Your task to perform on an android device: search for starred emails in the gmail app Image 0: 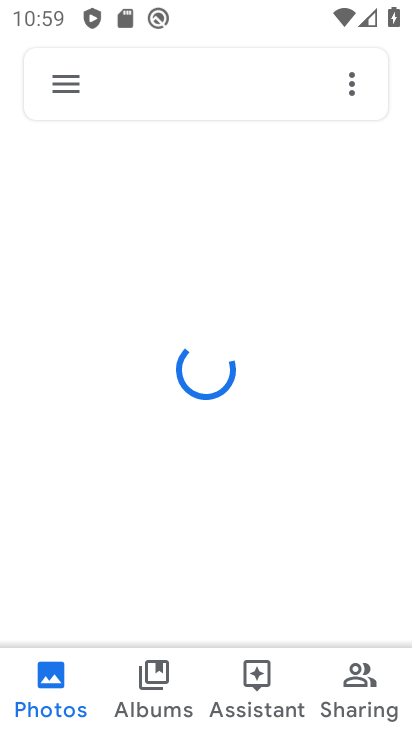
Step 0: press back button
Your task to perform on an android device: search for starred emails in the gmail app Image 1: 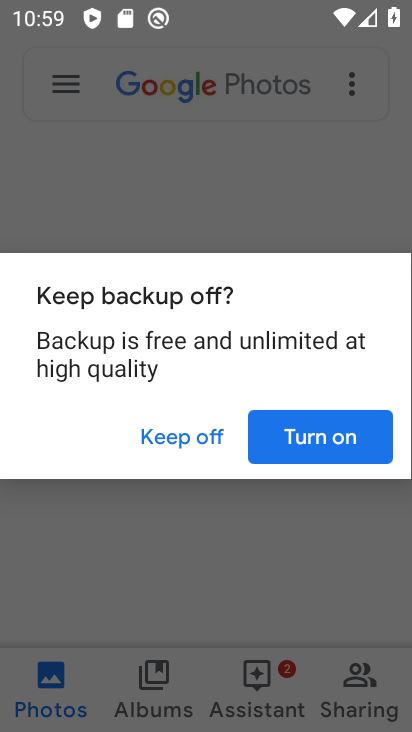
Step 1: press home button
Your task to perform on an android device: search for starred emails in the gmail app Image 2: 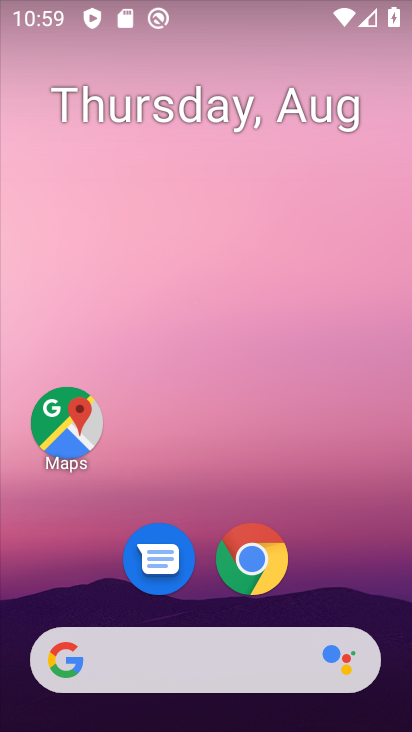
Step 2: drag from (354, 530) to (310, 124)
Your task to perform on an android device: search for starred emails in the gmail app Image 3: 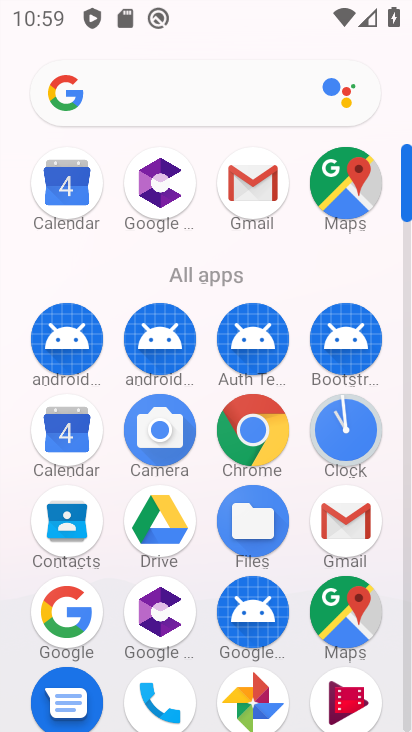
Step 3: click (331, 497)
Your task to perform on an android device: search for starred emails in the gmail app Image 4: 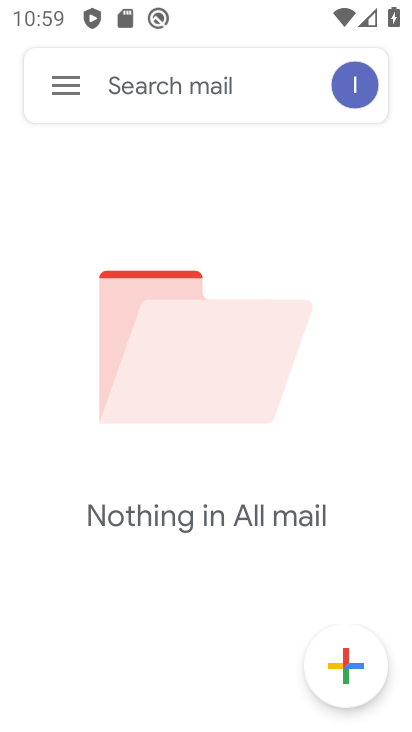
Step 4: click (62, 82)
Your task to perform on an android device: search for starred emails in the gmail app Image 5: 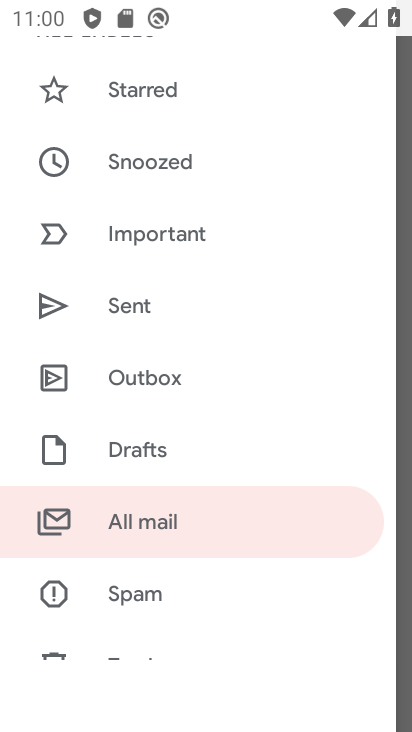
Step 5: click (137, 101)
Your task to perform on an android device: search for starred emails in the gmail app Image 6: 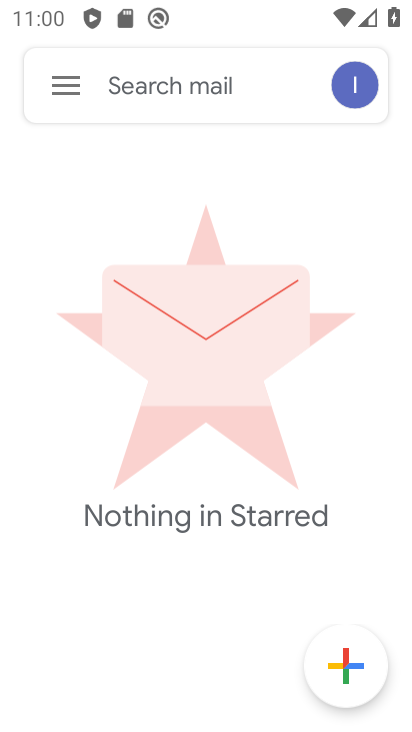
Step 6: task complete